Your task to perform on an android device: set default search engine in the chrome app Image 0: 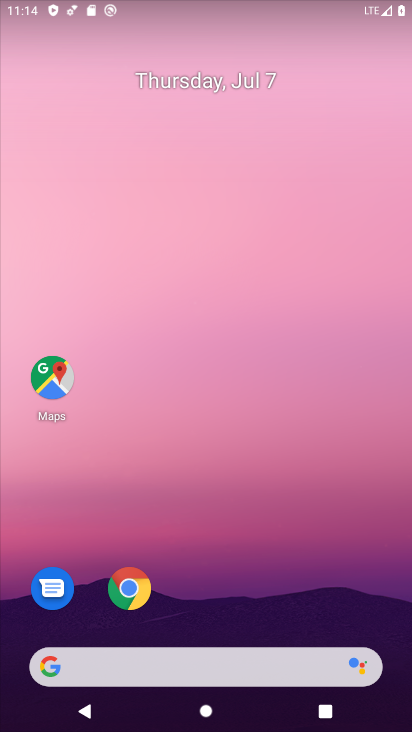
Step 0: drag from (219, 644) to (3, 446)
Your task to perform on an android device: set default search engine in the chrome app Image 1: 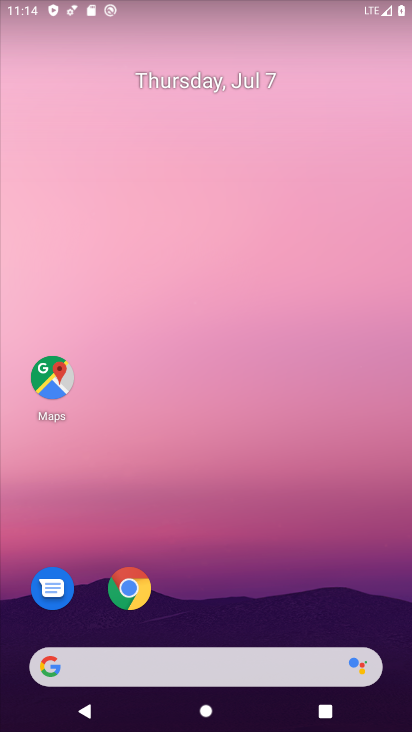
Step 1: drag from (227, 631) to (352, 71)
Your task to perform on an android device: set default search engine in the chrome app Image 2: 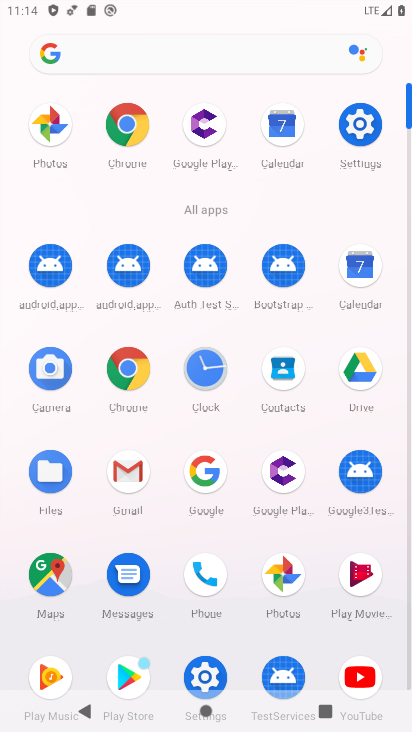
Step 2: click (126, 377)
Your task to perform on an android device: set default search engine in the chrome app Image 3: 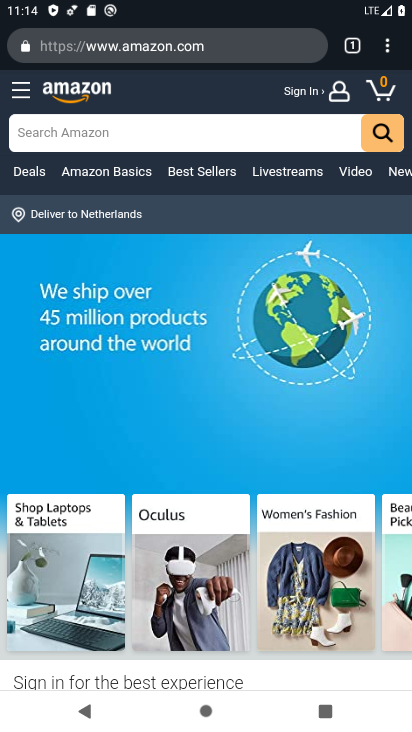
Step 3: click (394, 42)
Your task to perform on an android device: set default search engine in the chrome app Image 4: 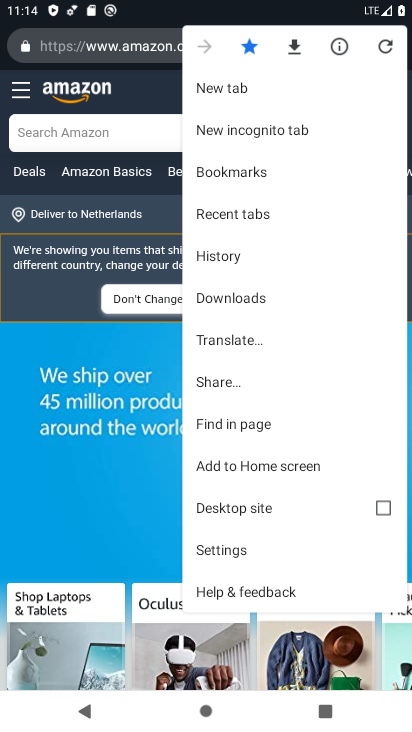
Step 4: click (242, 553)
Your task to perform on an android device: set default search engine in the chrome app Image 5: 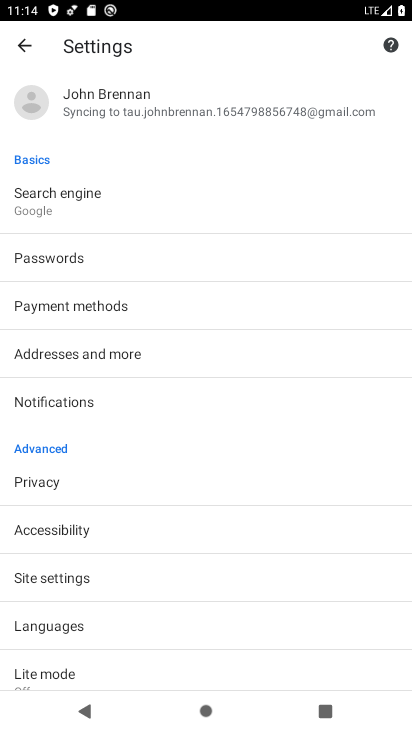
Step 5: click (51, 203)
Your task to perform on an android device: set default search engine in the chrome app Image 6: 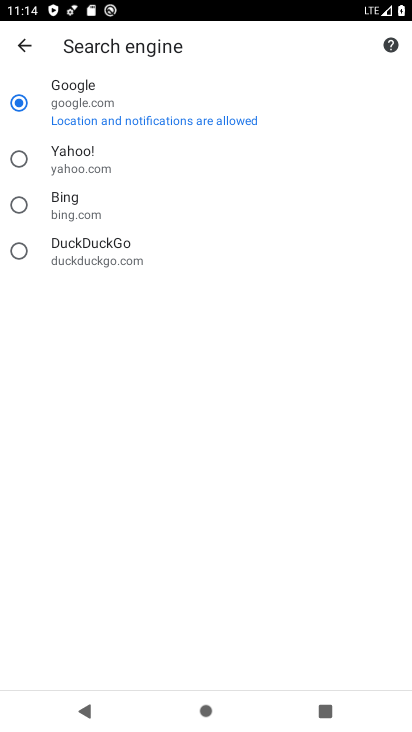
Step 6: click (14, 103)
Your task to perform on an android device: set default search engine in the chrome app Image 7: 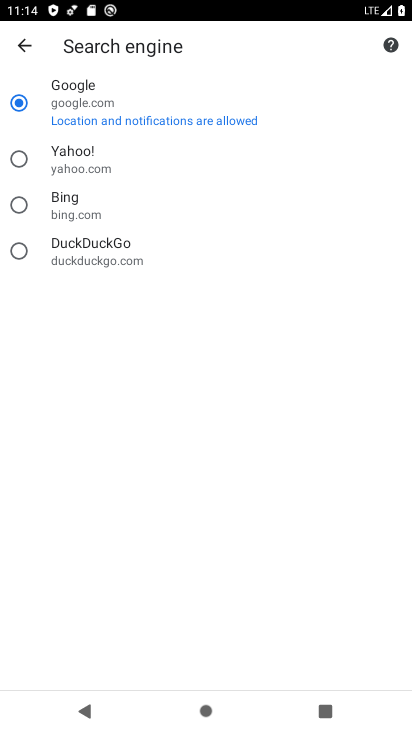
Step 7: task complete